Your task to perform on an android device: snooze an email in the gmail app Image 0: 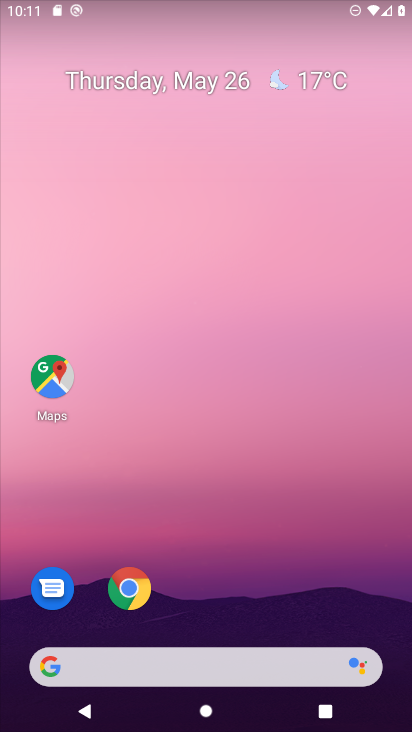
Step 0: drag from (390, 626) to (305, 39)
Your task to perform on an android device: snooze an email in the gmail app Image 1: 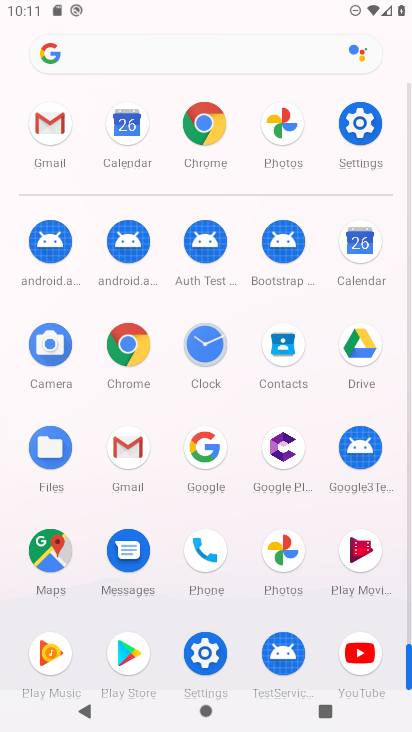
Step 1: click (126, 447)
Your task to perform on an android device: snooze an email in the gmail app Image 2: 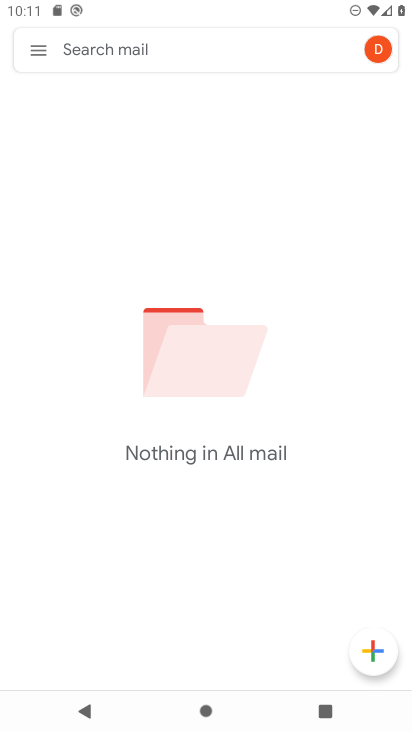
Step 2: click (37, 46)
Your task to perform on an android device: snooze an email in the gmail app Image 3: 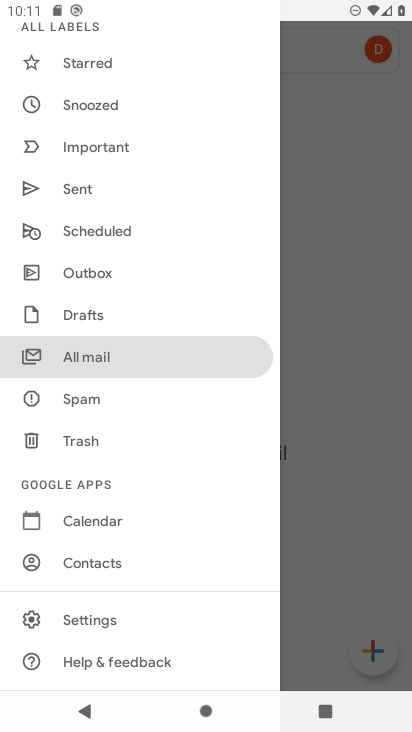
Step 3: click (99, 108)
Your task to perform on an android device: snooze an email in the gmail app Image 4: 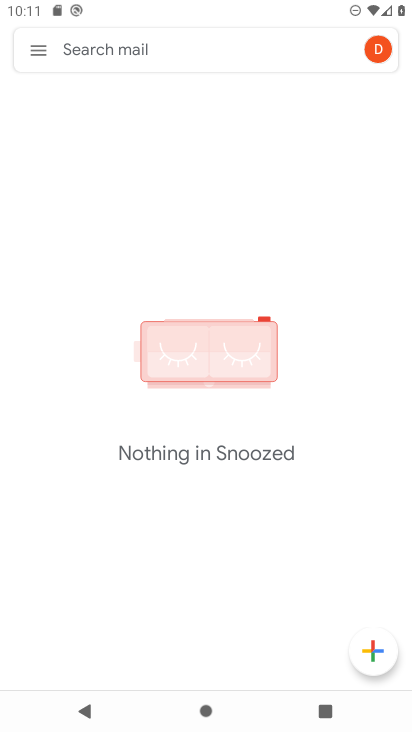
Step 4: click (41, 43)
Your task to perform on an android device: snooze an email in the gmail app Image 5: 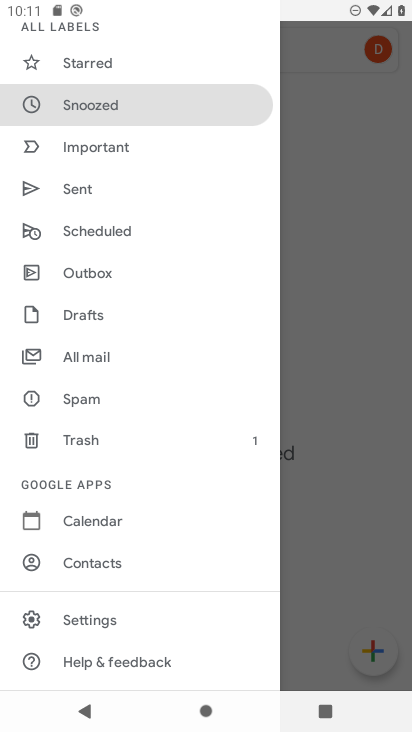
Step 5: click (98, 355)
Your task to perform on an android device: snooze an email in the gmail app Image 6: 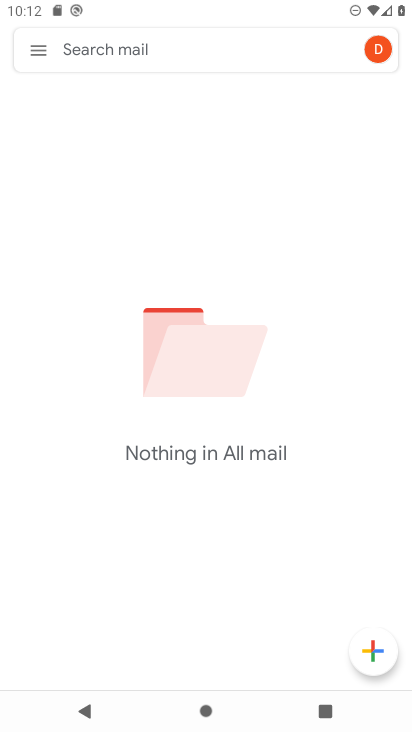
Step 6: task complete